Your task to perform on an android device: open wifi settings Image 0: 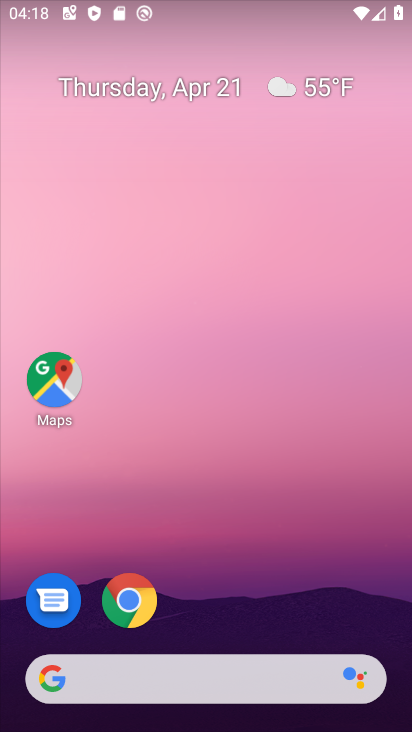
Step 0: drag from (231, 613) to (259, 31)
Your task to perform on an android device: open wifi settings Image 1: 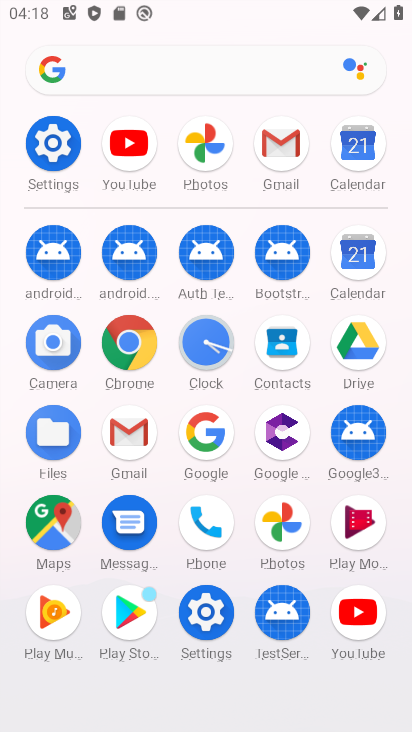
Step 1: click (46, 140)
Your task to perform on an android device: open wifi settings Image 2: 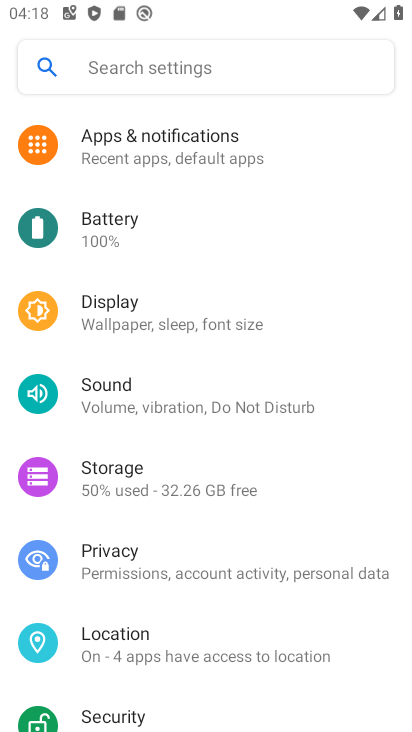
Step 2: drag from (119, 156) to (138, 380)
Your task to perform on an android device: open wifi settings Image 3: 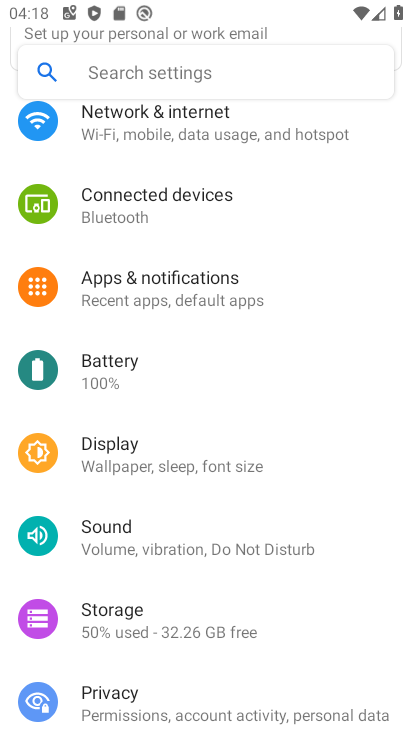
Step 3: click (173, 138)
Your task to perform on an android device: open wifi settings Image 4: 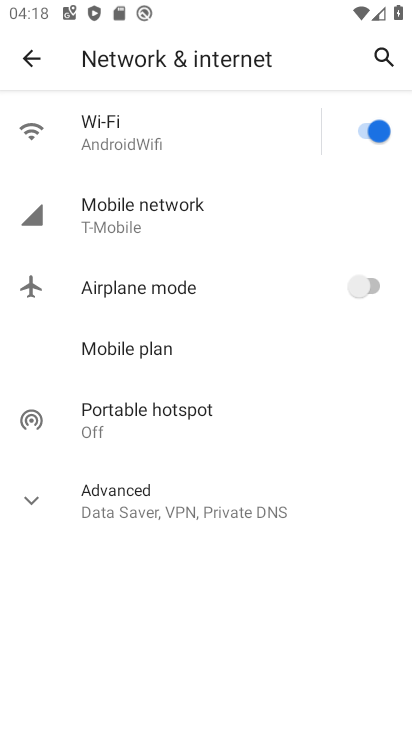
Step 4: click (162, 147)
Your task to perform on an android device: open wifi settings Image 5: 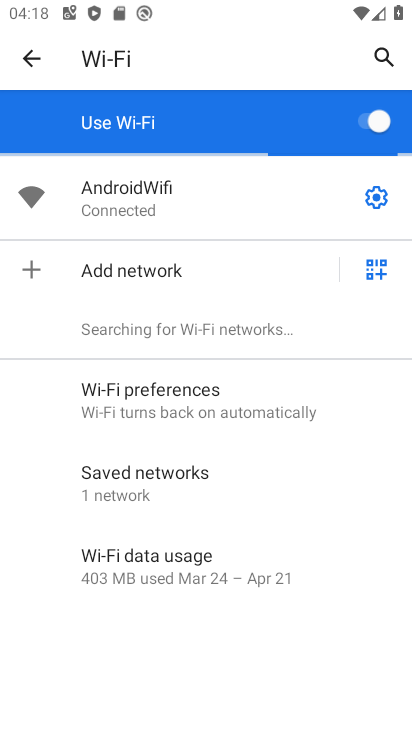
Step 5: task complete